Your task to perform on an android device: toggle pop-ups in chrome Image 0: 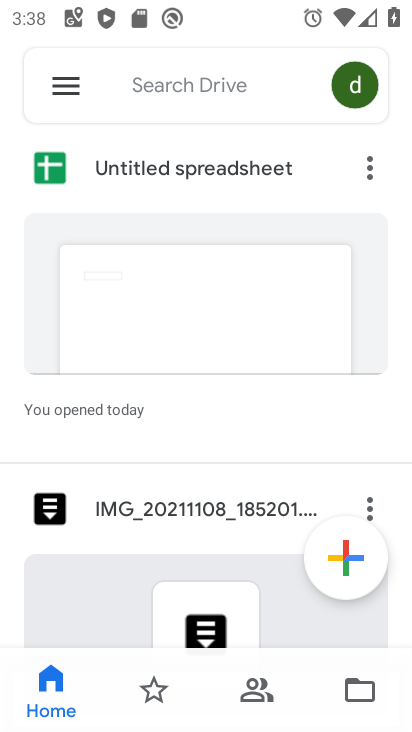
Step 0: press home button
Your task to perform on an android device: toggle pop-ups in chrome Image 1: 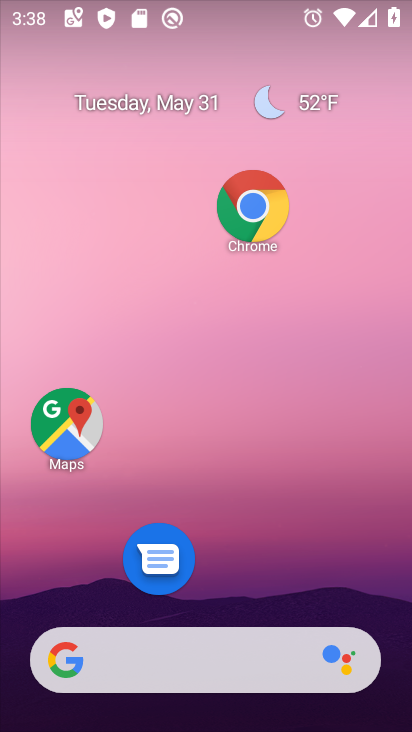
Step 1: click (242, 212)
Your task to perform on an android device: toggle pop-ups in chrome Image 2: 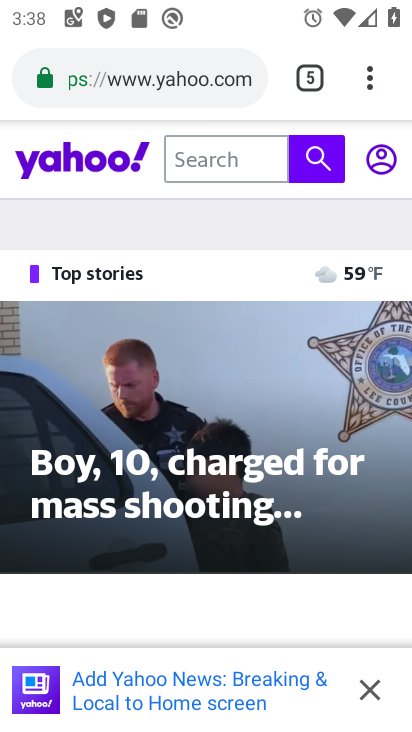
Step 2: drag from (373, 69) to (94, 624)
Your task to perform on an android device: toggle pop-ups in chrome Image 3: 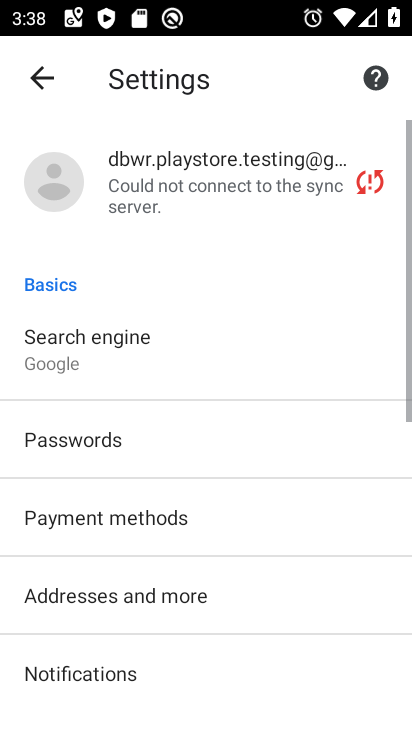
Step 3: drag from (117, 609) to (170, 343)
Your task to perform on an android device: toggle pop-ups in chrome Image 4: 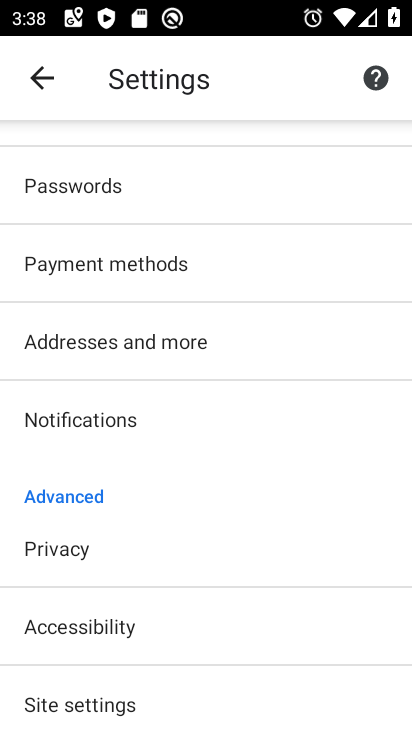
Step 4: drag from (158, 609) to (239, 377)
Your task to perform on an android device: toggle pop-ups in chrome Image 5: 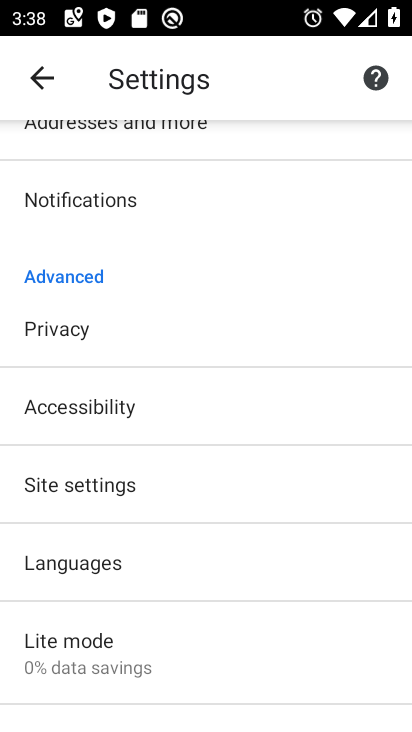
Step 5: click (103, 469)
Your task to perform on an android device: toggle pop-ups in chrome Image 6: 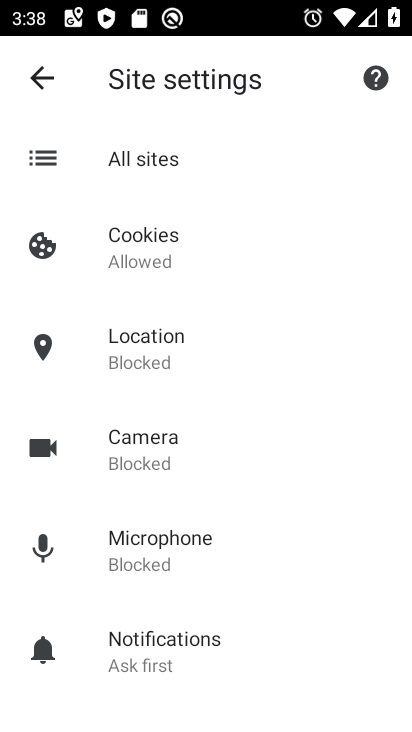
Step 6: drag from (164, 602) to (181, 318)
Your task to perform on an android device: toggle pop-ups in chrome Image 7: 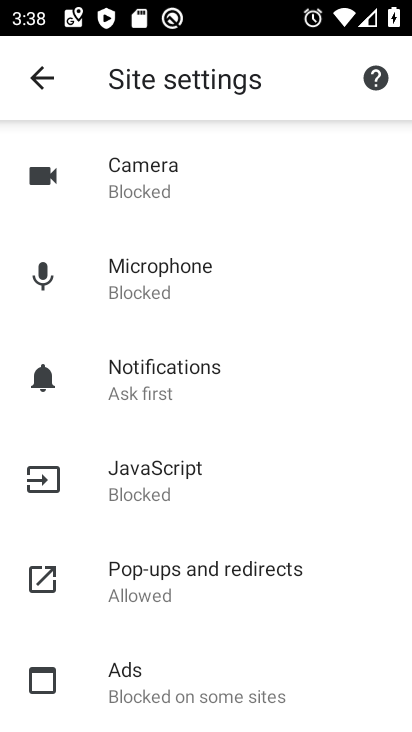
Step 7: click (199, 596)
Your task to perform on an android device: toggle pop-ups in chrome Image 8: 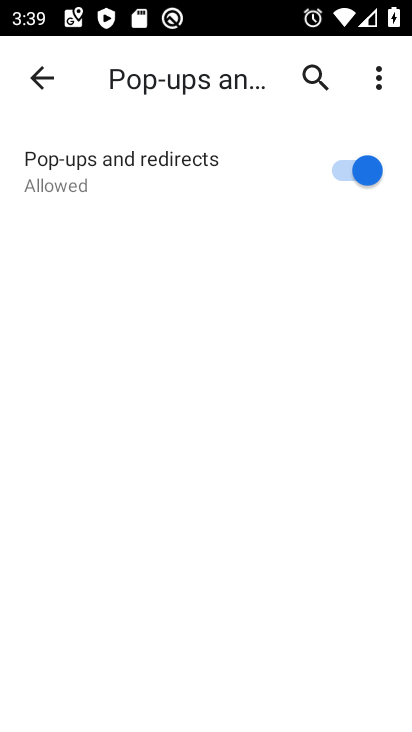
Step 8: click (344, 173)
Your task to perform on an android device: toggle pop-ups in chrome Image 9: 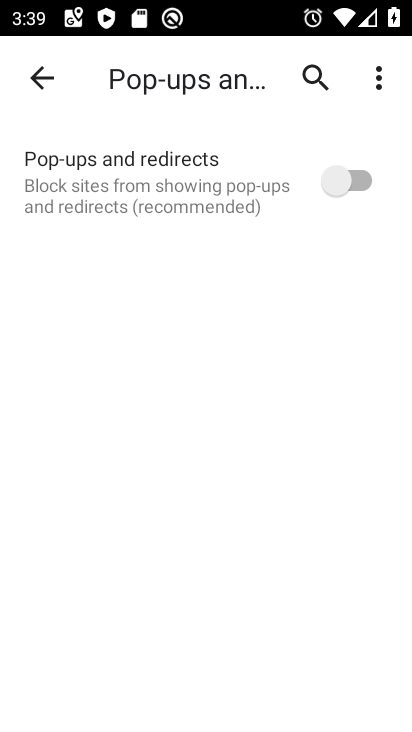
Step 9: task complete